Your task to perform on an android device: show emergency info Image 0: 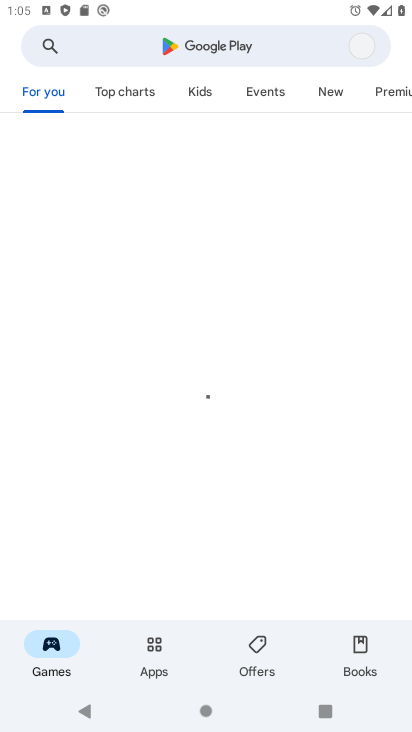
Step 0: press home button
Your task to perform on an android device: show emergency info Image 1: 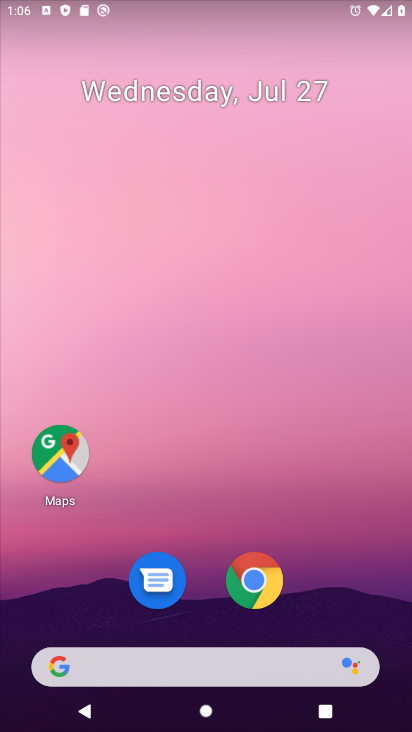
Step 1: drag from (251, 676) to (239, 87)
Your task to perform on an android device: show emergency info Image 2: 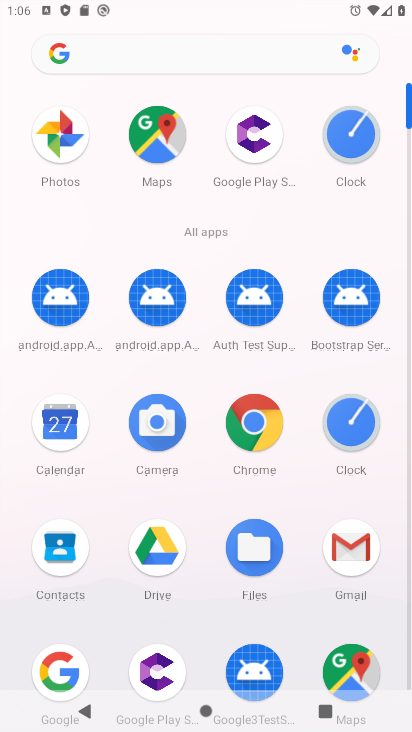
Step 2: drag from (223, 553) to (247, 318)
Your task to perform on an android device: show emergency info Image 3: 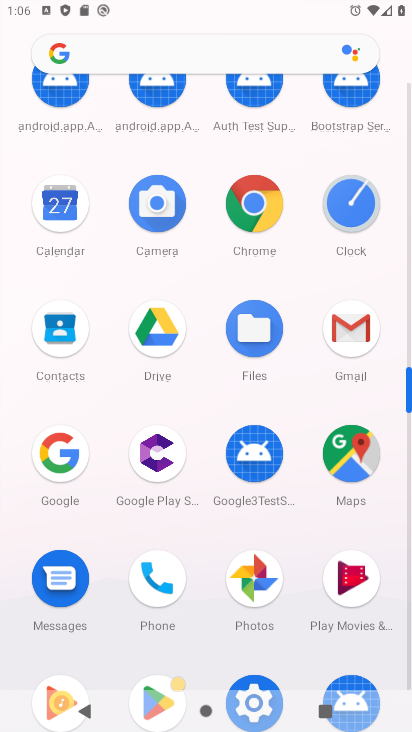
Step 3: click (254, 676)
Your task to perform on an android device: show emergency info Image 4: 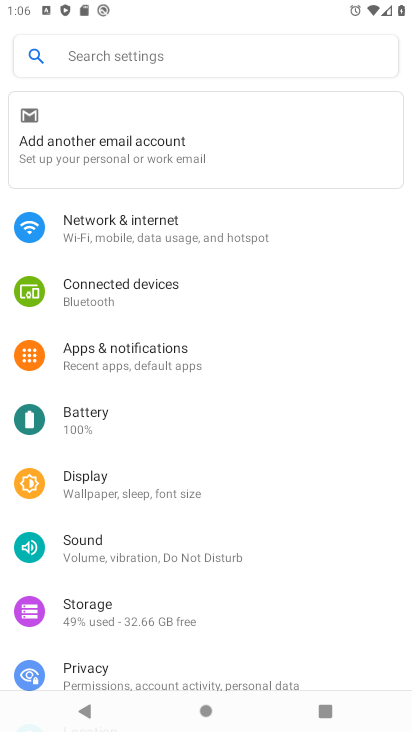
Step 4: click (120, 55)
Your task to perform on an android device: show emergency info Image 5: 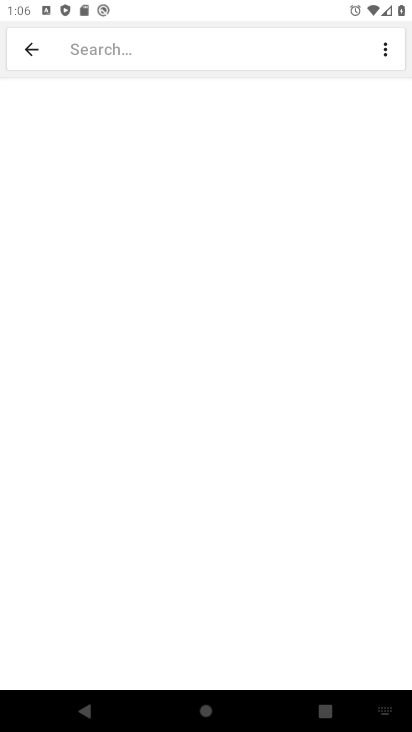
Step 5: drag from (369, 713) to (408, 594)
Your task to perform on an android device: show emergency info Image 6: 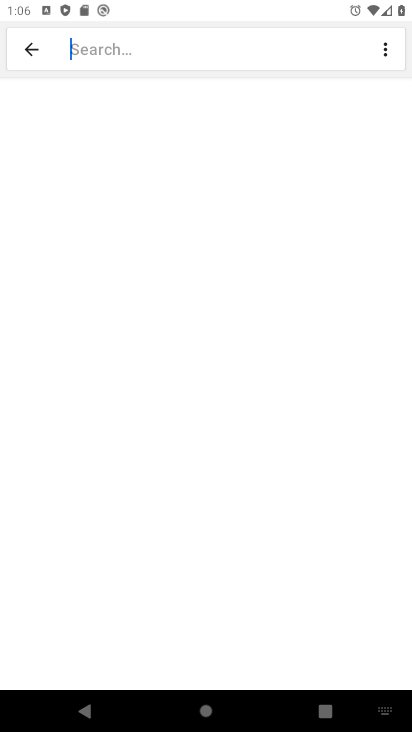
Step 6: click (382, 725)
Your task to perform on an android device: show emergency info Image 7: 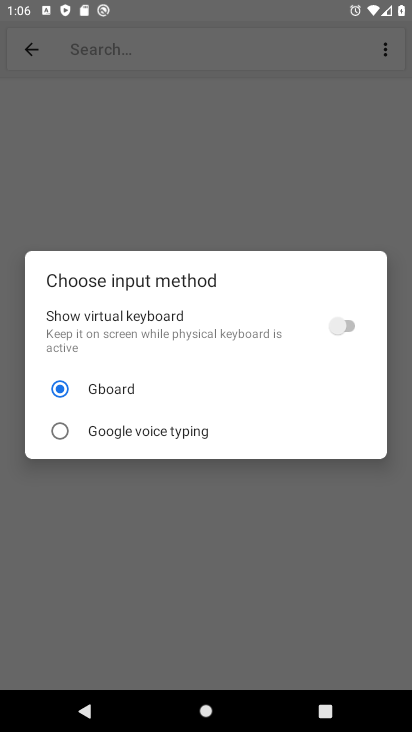
Step 7: click (343, 331)
Your task to perform on an android device: show emergency info Image 8: 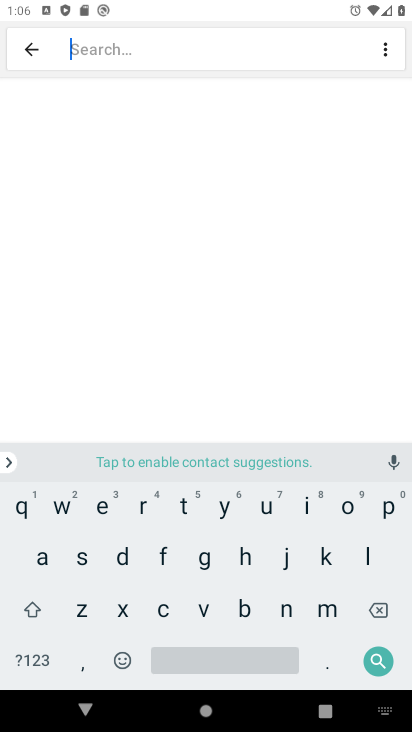
Step 8: click (142, 56)
Your task to perform on an android device: show emergency info Image 9: 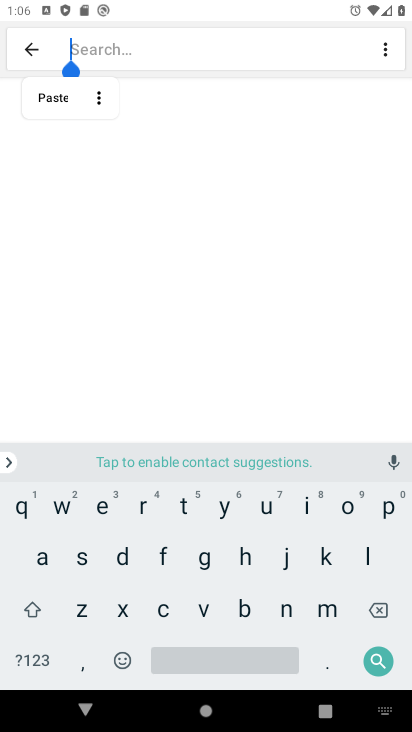
Step 9: click (103, 508)
Your task to perform on an android device: show emergency info Image 10: 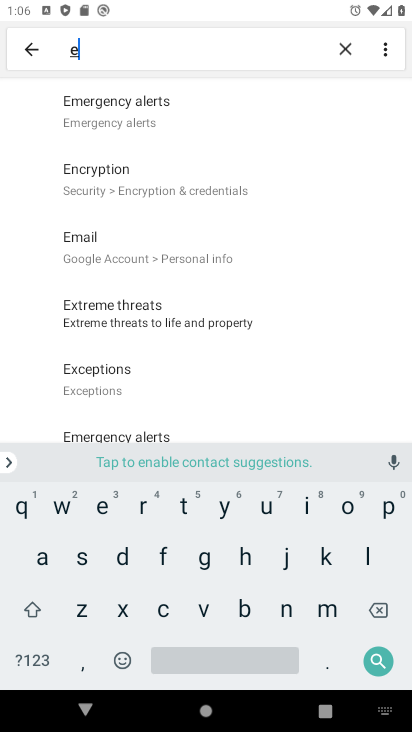
Step 10: click (323, 607)
Your task to perform on an android device: show emergency info Image 11: 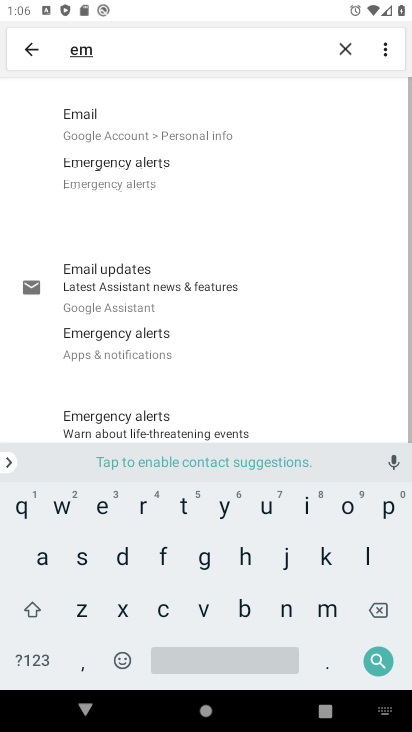
Step 11: click (99, 510)
Your task to perform on an android device: show emergency info Image 12: 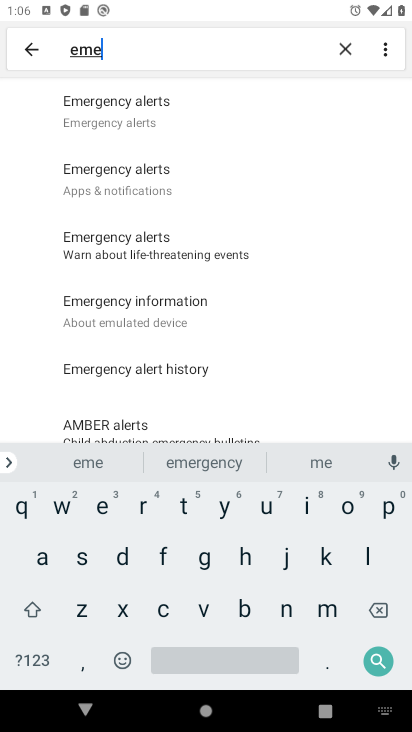
Step 12: click (184, 469)
Your task to perform on an android device: show emergency info Image 13: 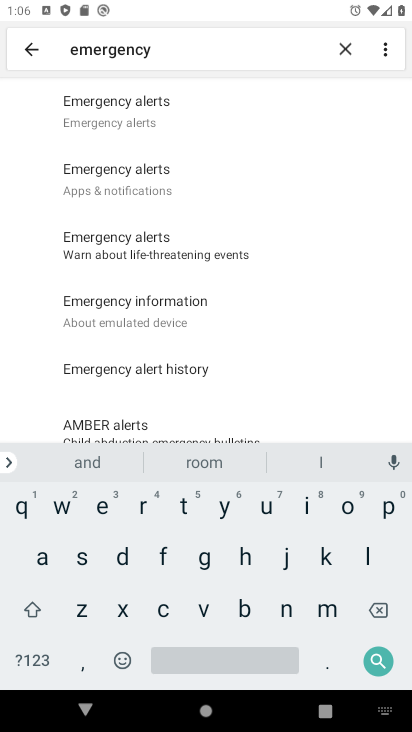
Step 13: click (303, 507)
Your task to perform on an android device: show emergency info Image 14: 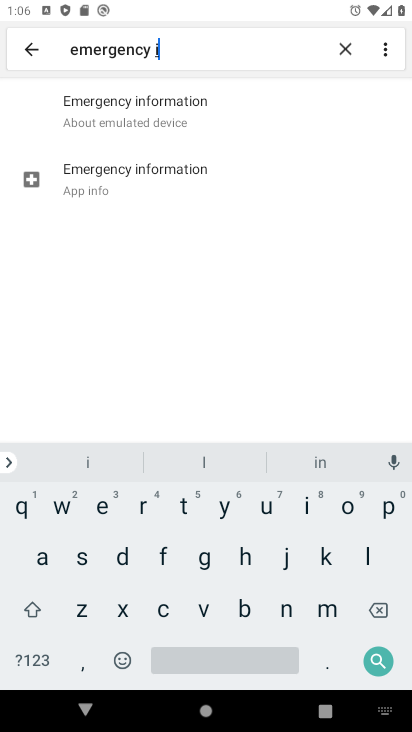
Step 14: click (167, 171)
Your task to perform on an android device: show emergency info Image 15: 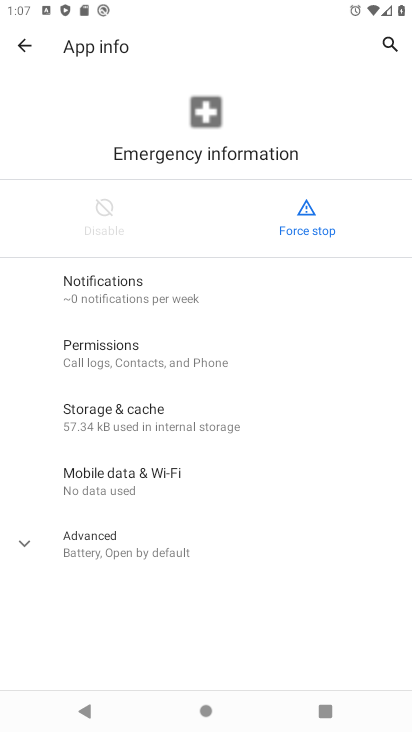
Step 15: task complete